Your task to perform on an android device: turn on translation in the chrome app Image 0: 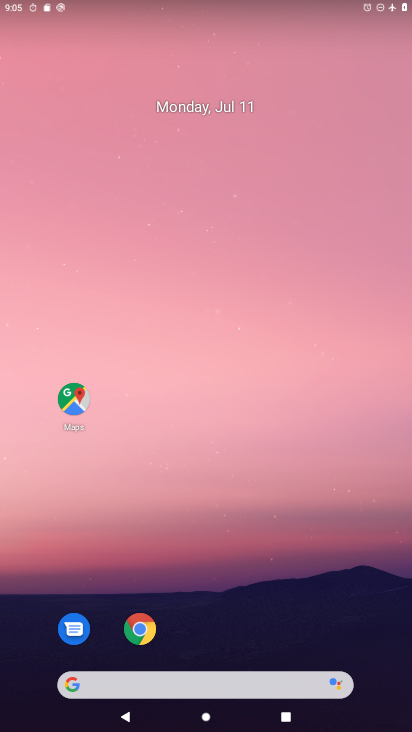
Step 0: click (147, 630)
Your task to perform on an android device: turn on translation in the chrome app Image 1: 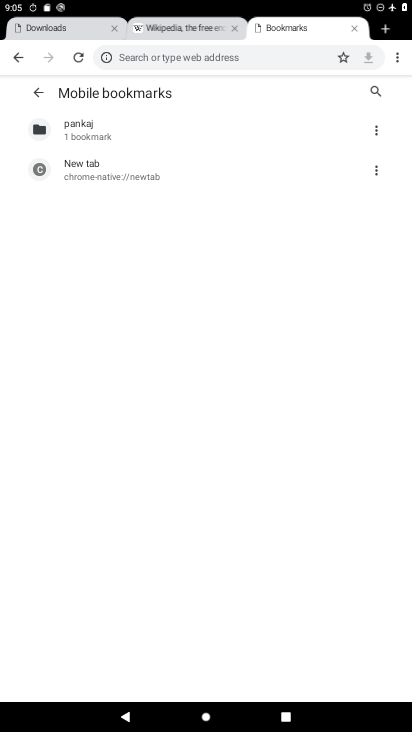
Step 1: click (395, 57)
Your task to perform on an android device: turn on translation in the chrome app Image 2: 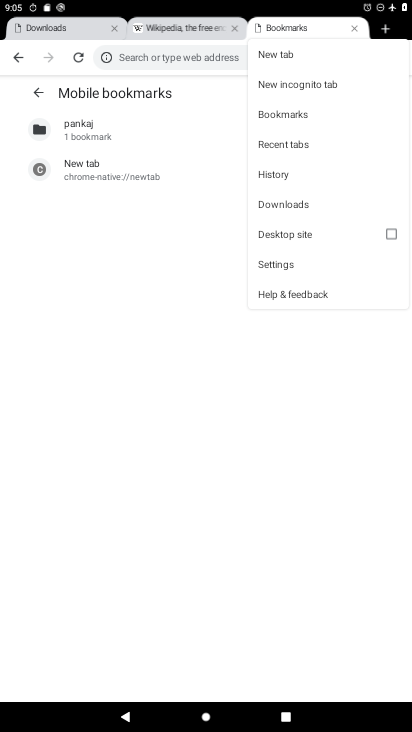
Step 2: click (305, 253)
Your task to perform on an android device: turn on translation in the chrome app Image 3: 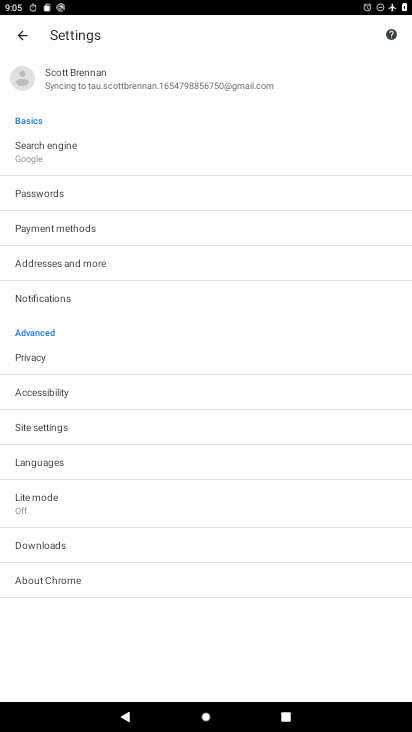
Step 3: click (53, 468)
Your task to perform on an android device: turn on translation in the chrome app Image 4: 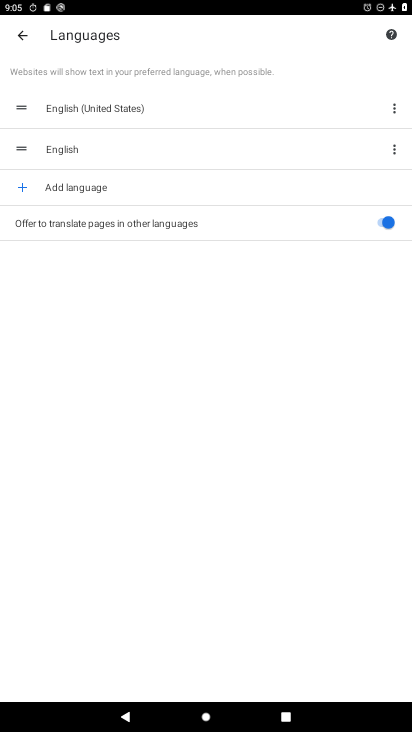
Step 4: task complete